Your task to perform on an android device: open app "Microsoft Authenticator" (install if not already installed) Image 0: 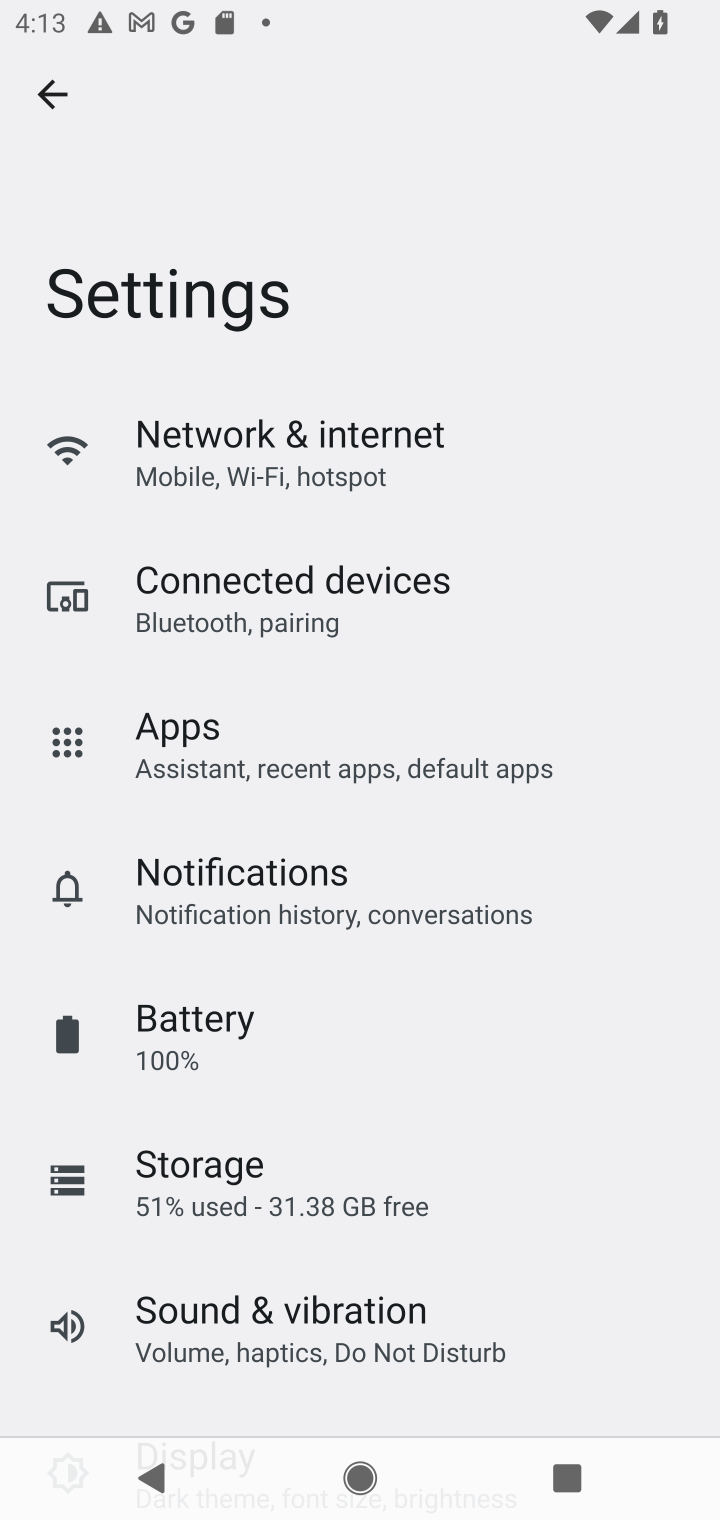
Step 0: press home button
Your task to perform on an android device: open app "Microsoft Authenticator" (install if not already installed) Image 1: 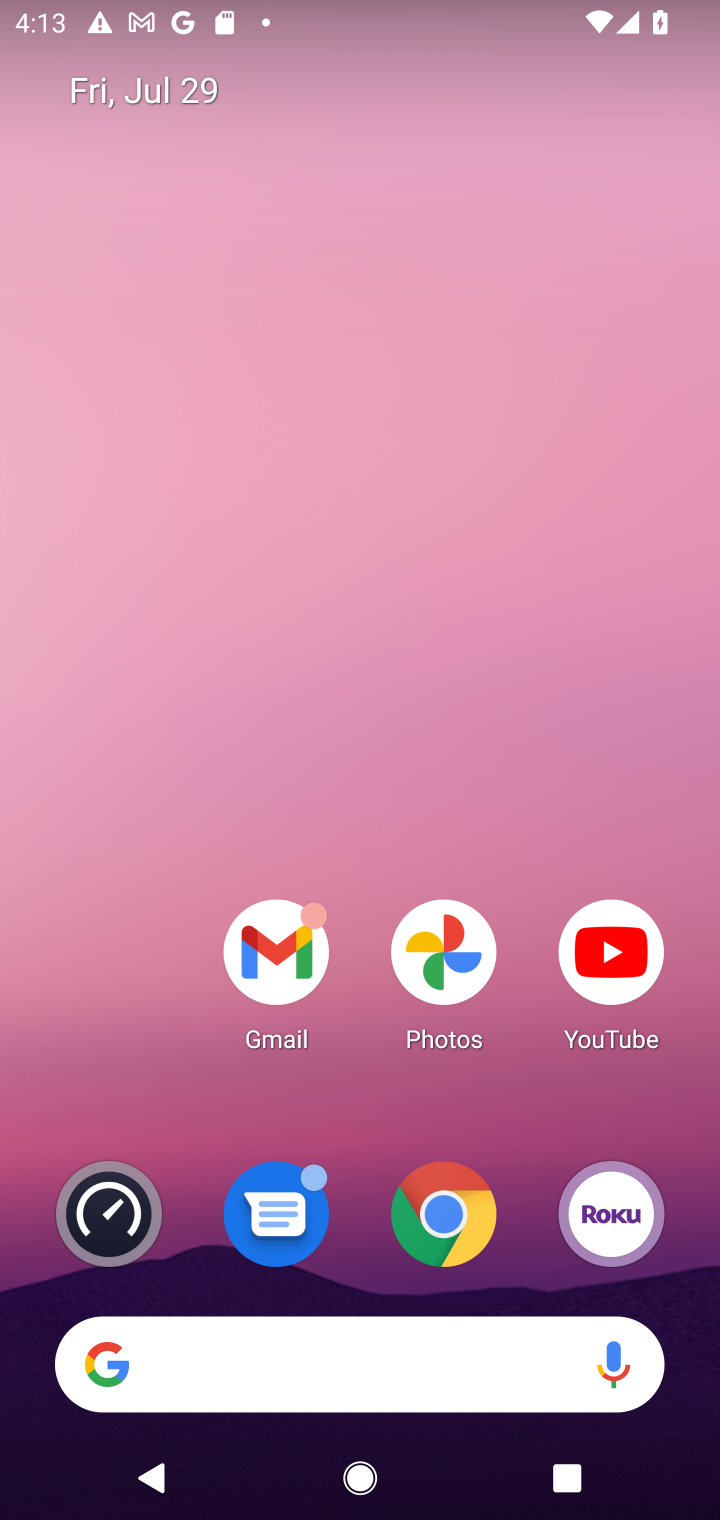
Step 1: drag from (356, 1275) to (5, 709)
Your task to perform on an android device: open app "Microsoft Authenticator" (install if not already installed) Image 2: 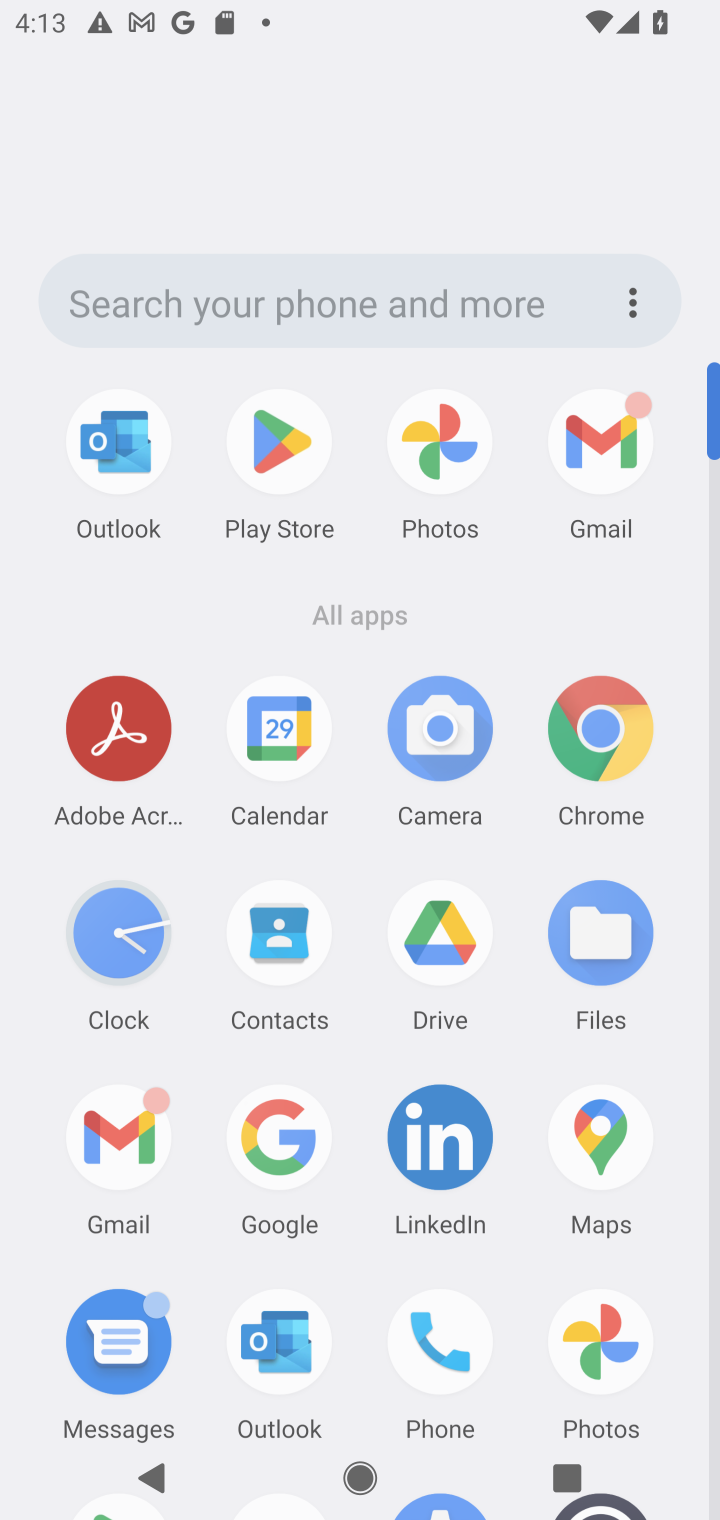
Step 2: click (257, 267)
Your task to perform on an android device: open app "Microsoft Authenticator" (install if not already installed) Image 3: 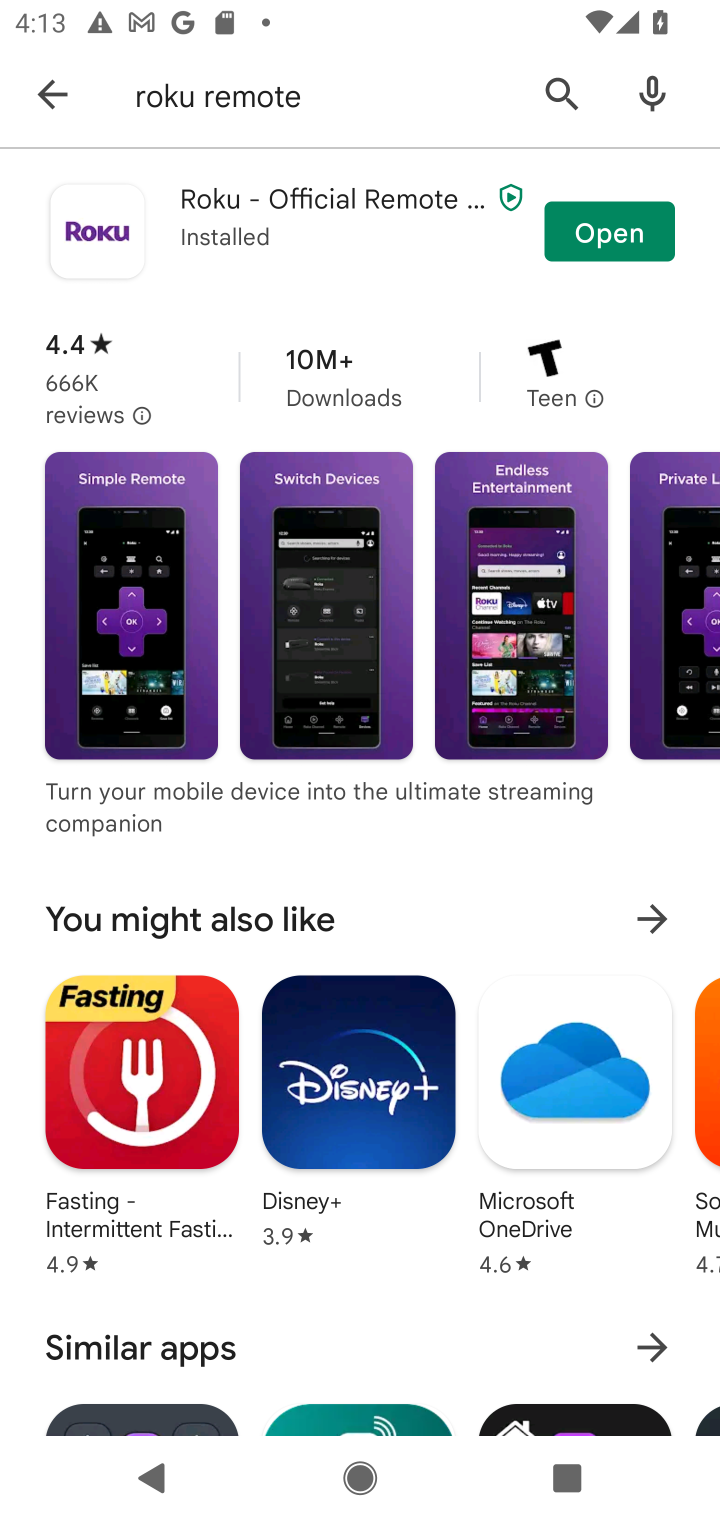
Step 3: click (284, 84)
Your task to perform on an android device: open app "Microsoft Authenticator" (install if not already installed) Image 4: 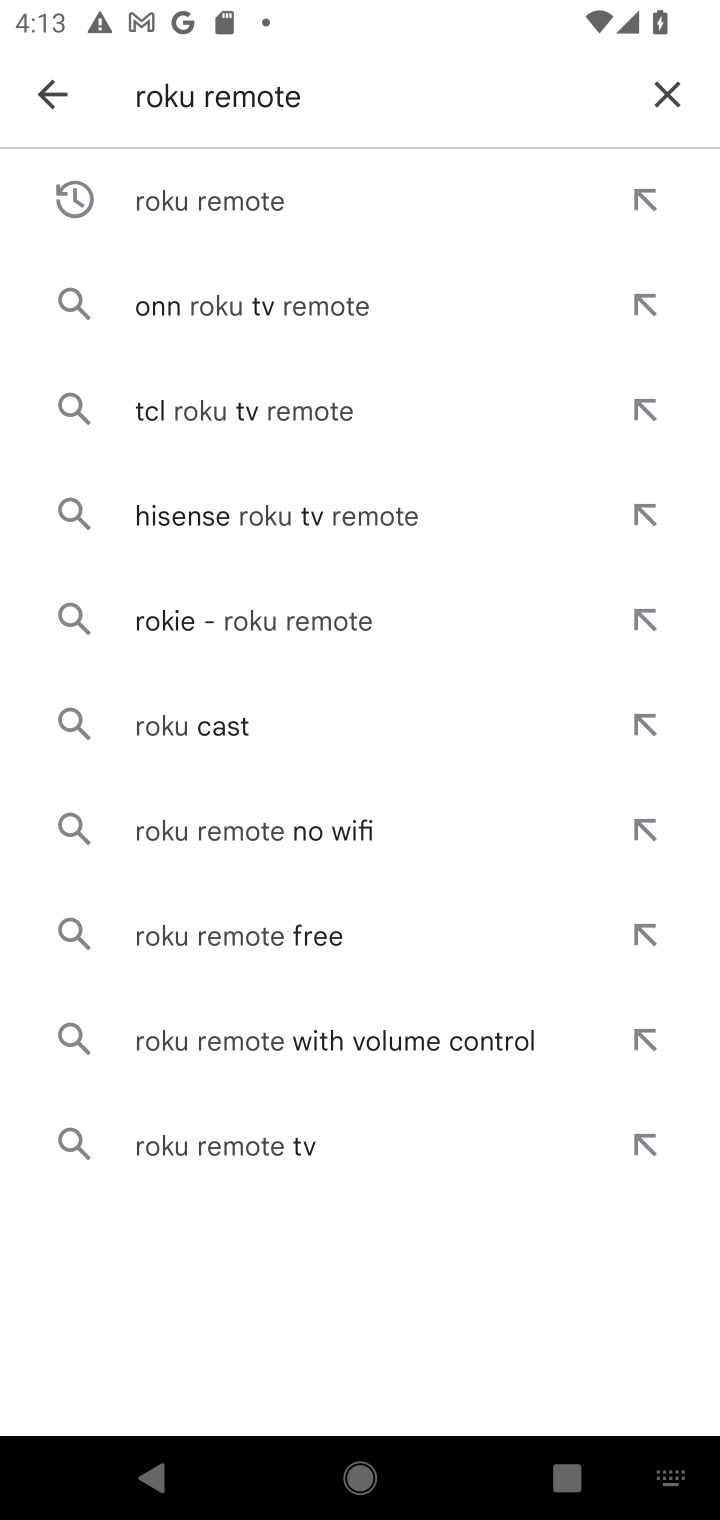
Step 4: click (680, 87)
Your task to perform on an android device: open app "Microsoft Authenticator" (install if not already installed) Image 5: 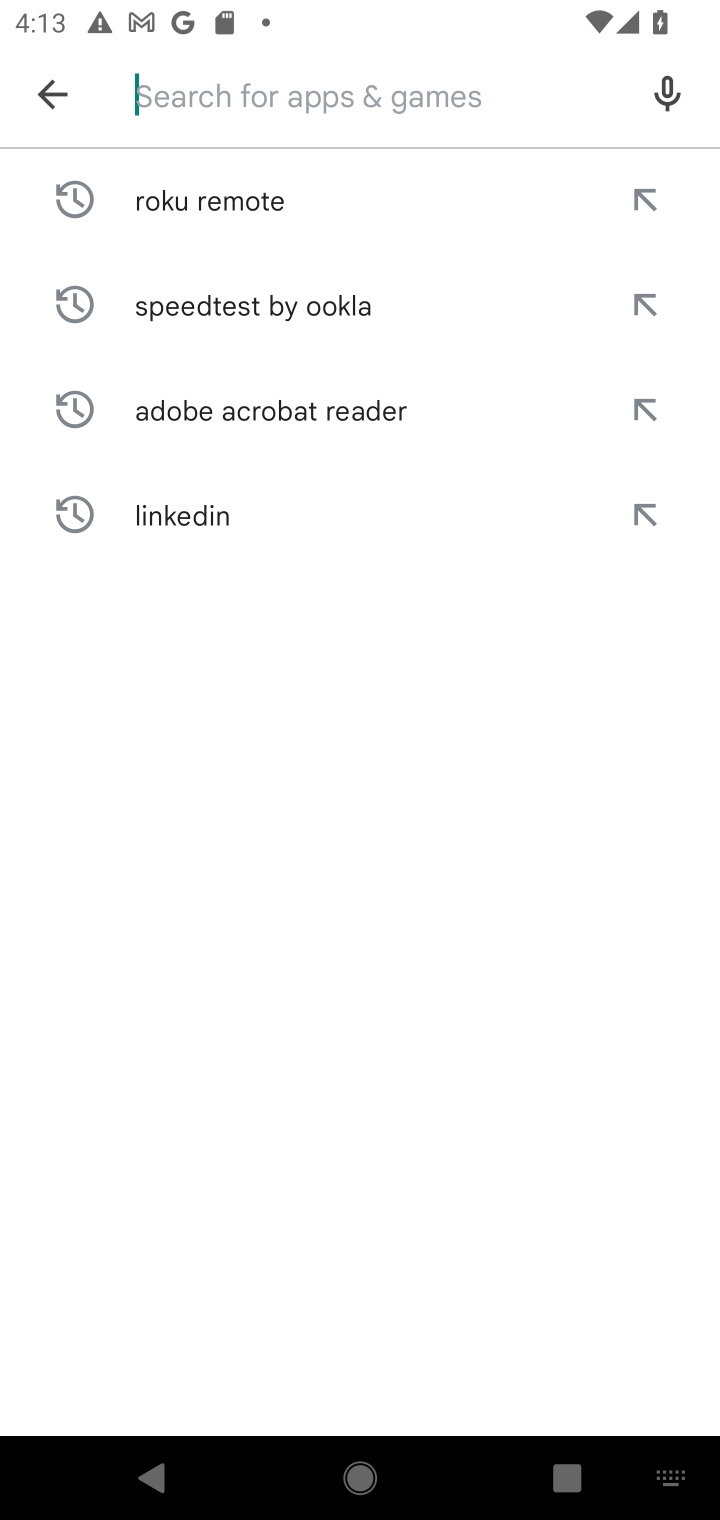
Step 5: type "Microsoft Authenticator"
Your task to perform on an android device: open app "Microsoft Authenticator" (install if not already installed) Image 6: 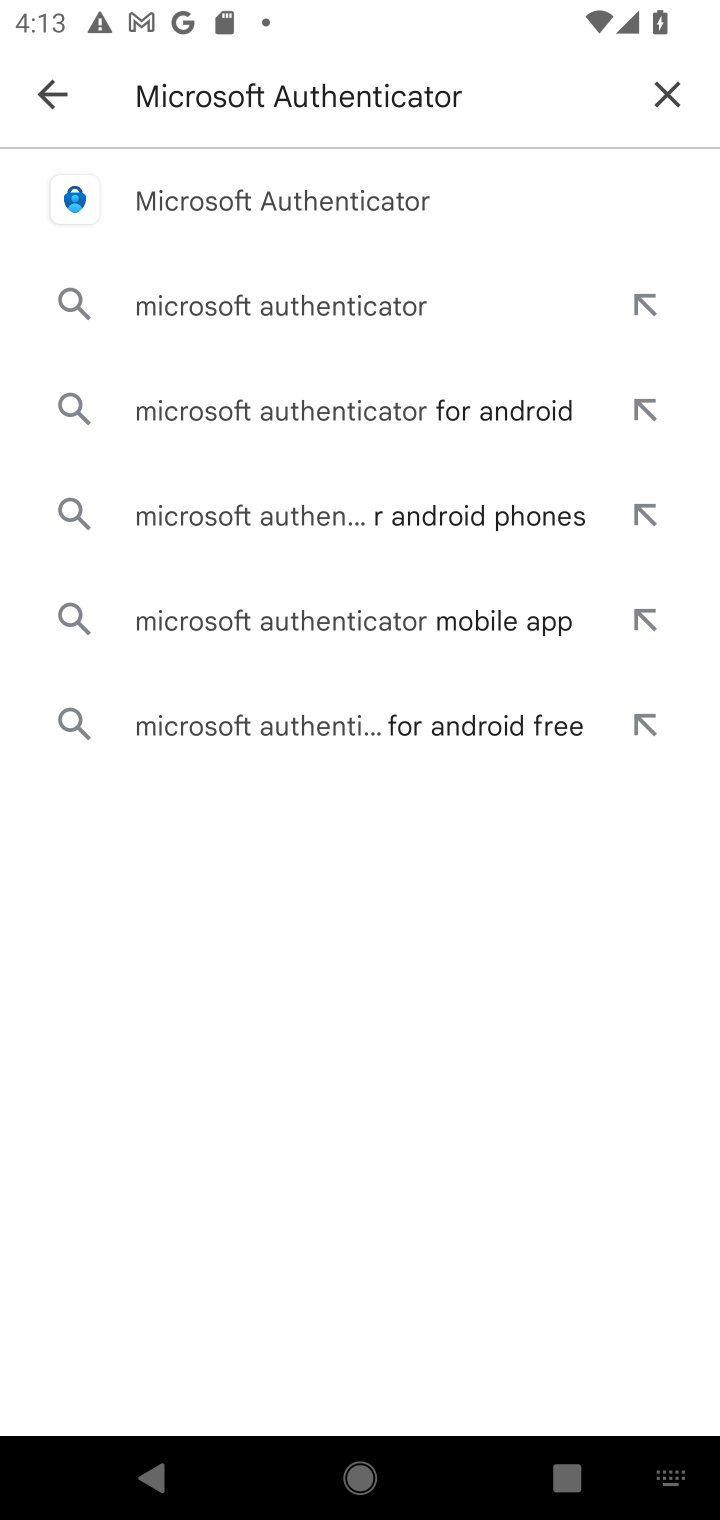
Step 6: click (283, 208)
Your task to perform on an android device: open app "Microsoft Authenticator" (install if not already installed) Image 7: 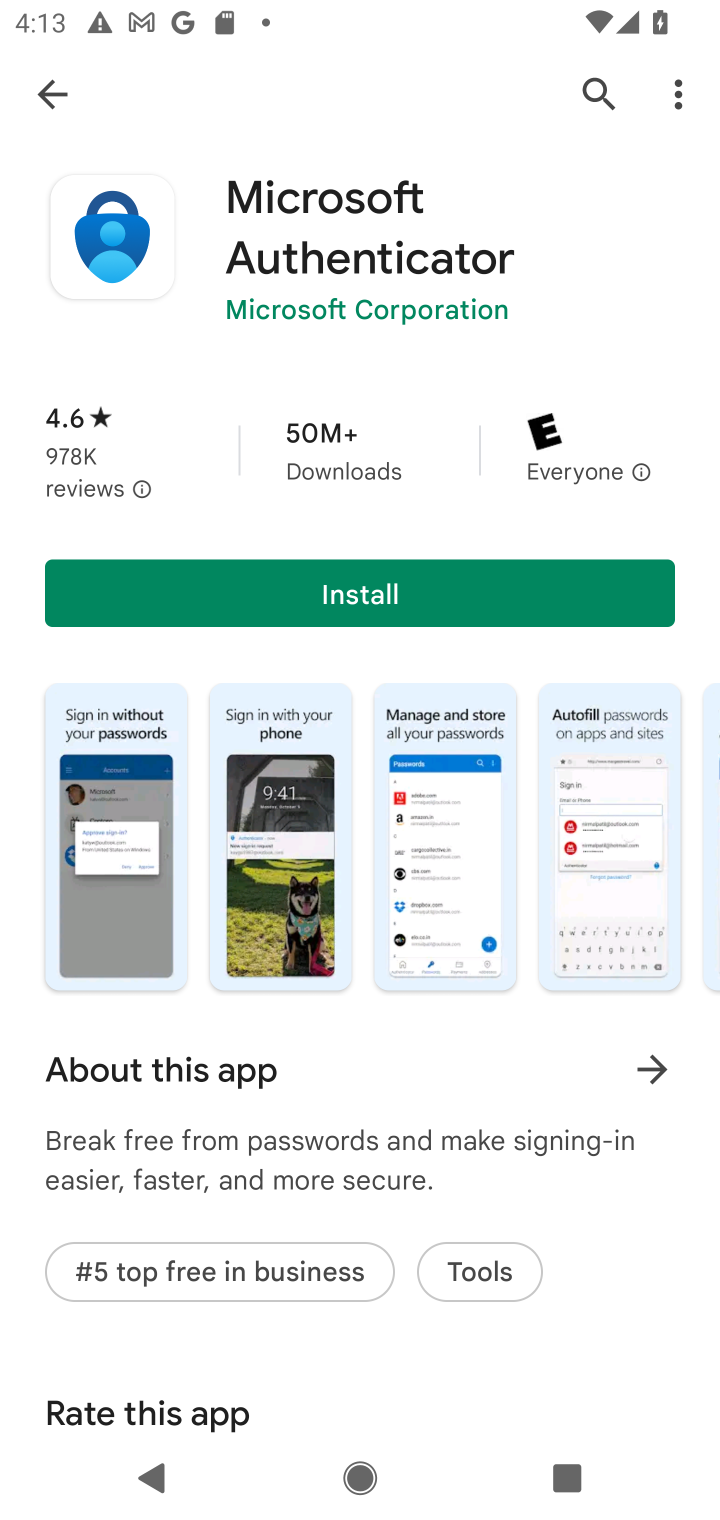
Step 7: click (413, 597)
Your task to perform on an android device: open app "Microsoft Authenticator" (install if not already installed) Image 8: 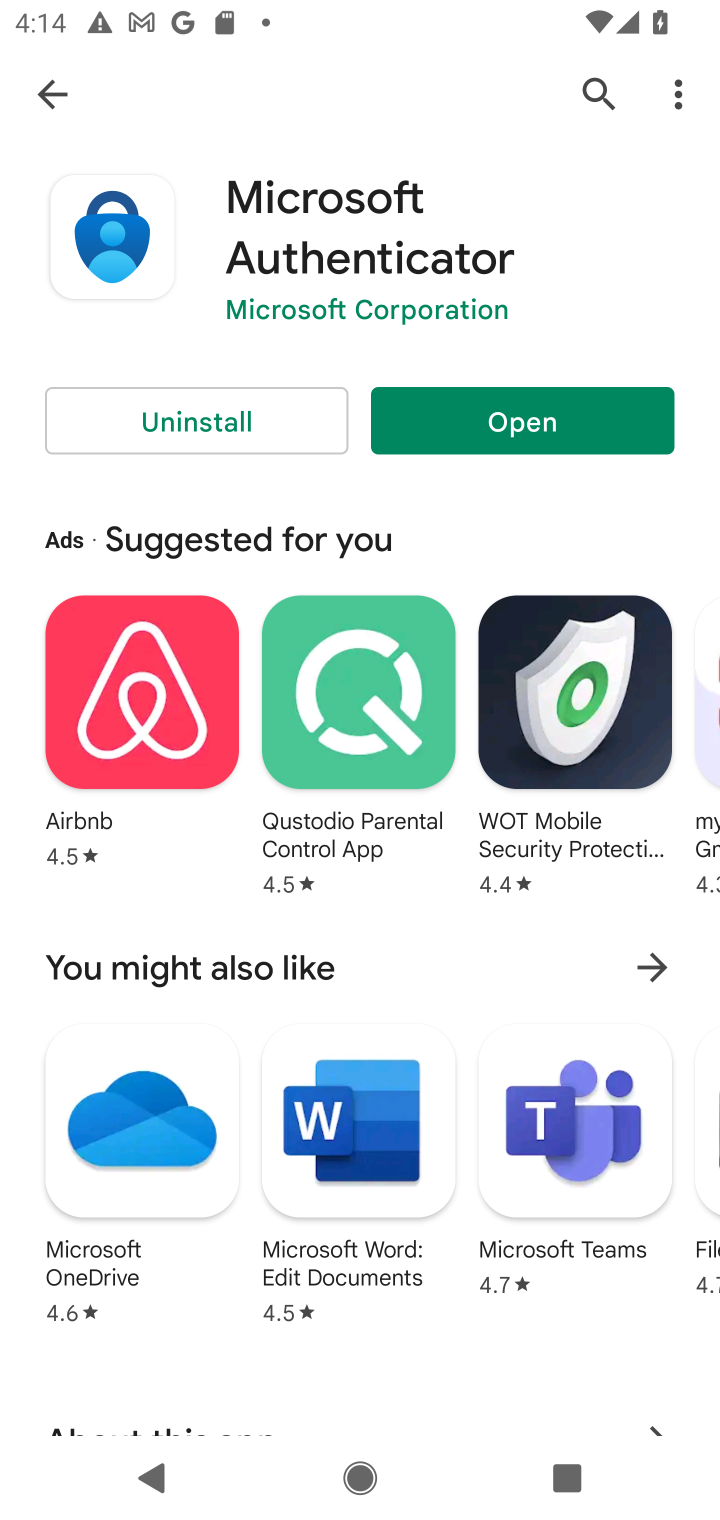
Step 8: click (548, 411)
Your task to perform on an android device: open app "Microsoft Authenticator" (install if not already installed) Image 9: 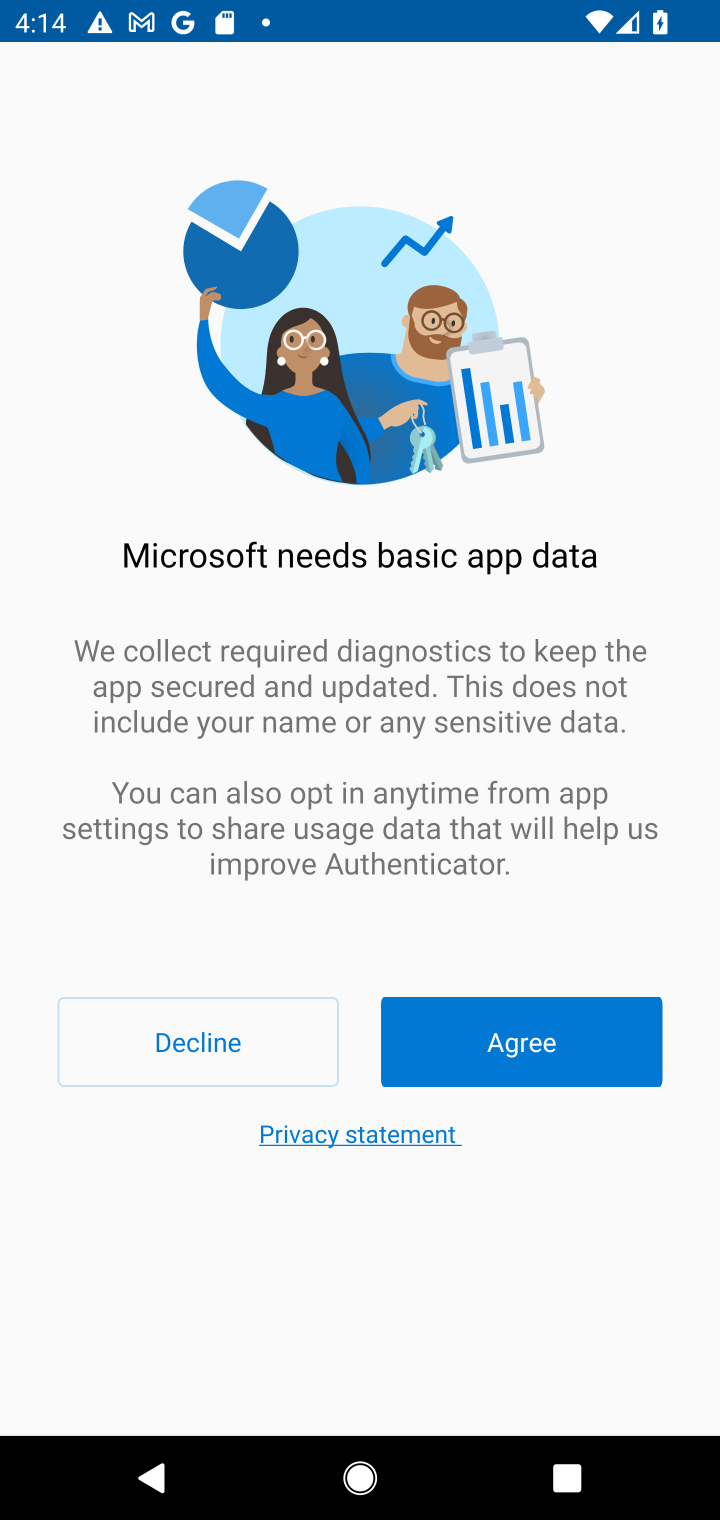
Step 9: click (620, 1039)
Your task to perform on an android device: open app "Microsoft Authenticator" (install if not already installed) Image 10: 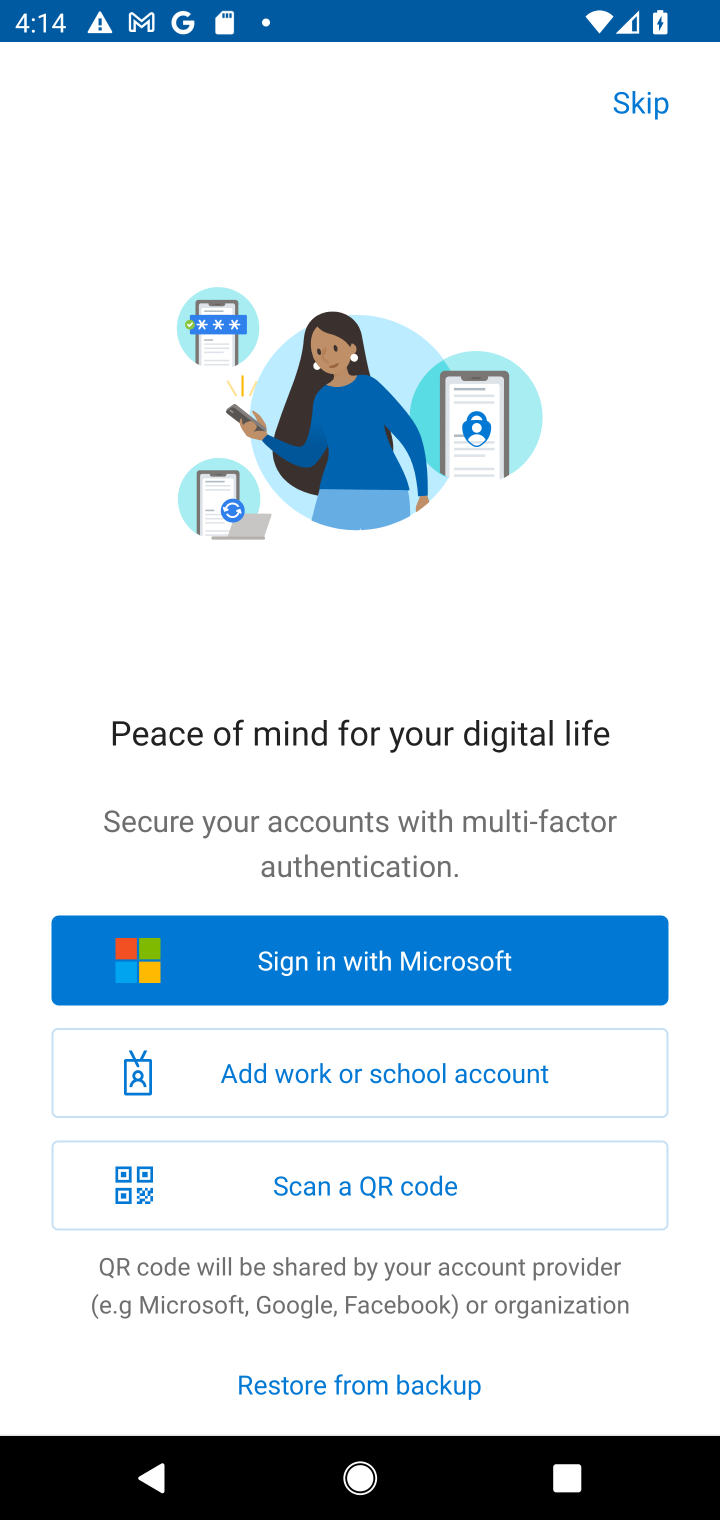
Step 10: click (637, 96)
Your task to perform on an android device: open app "Microsoft Authenticator" (install if not already installed) Image 11: 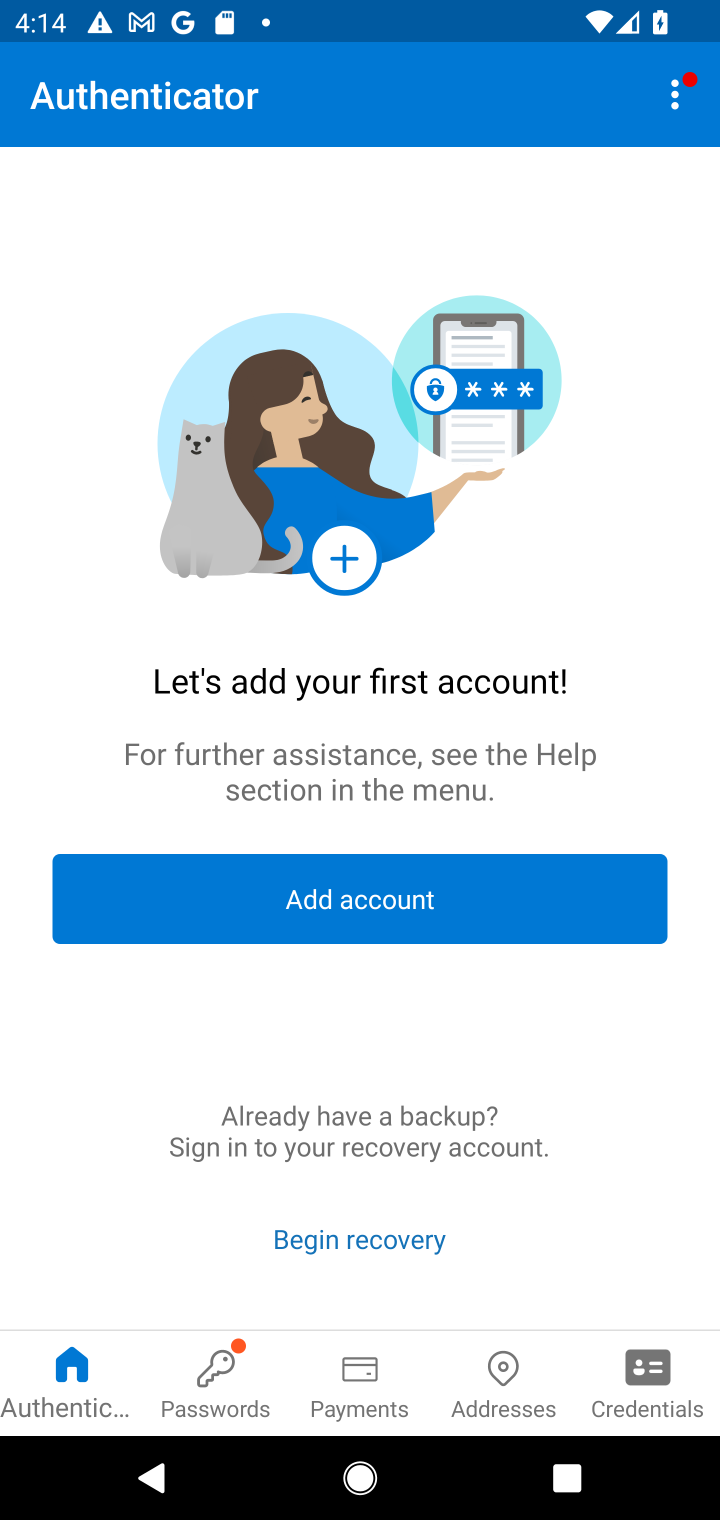
Step 11: task complete